Your task to perform on an android device: Open eBay Image 0: 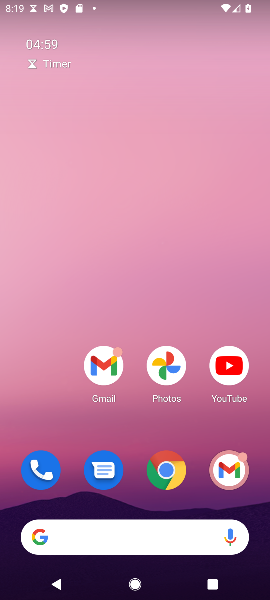
Step 0: click (171, 473)
Your task to perform on an android device: Open eBay Image 1: 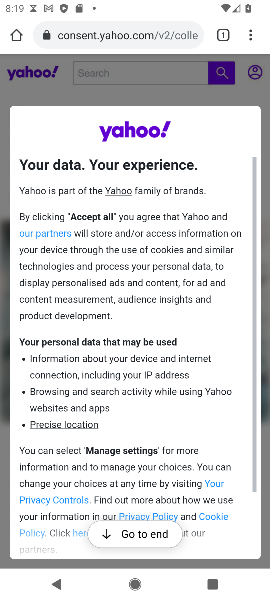
Step 1: click (137, 32)
Your task to perform on an android device: Open eBay Image 2: 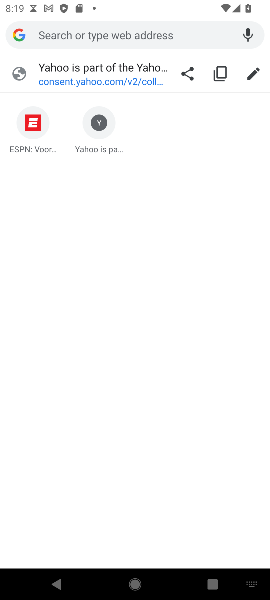
Step 2: click (137, 32)
Your task to perform on an android device: Open eBay Image 3: 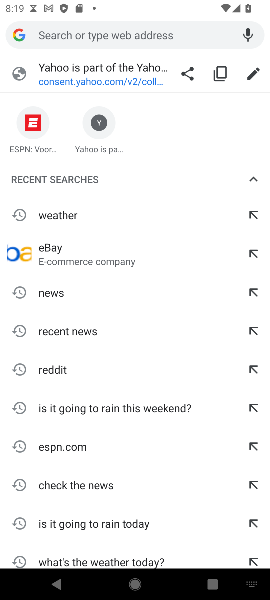
Step 3: type "eBay"
Your task to perform on an android device: Open eBay Image 4: 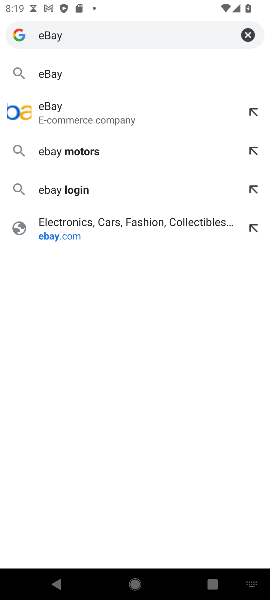
Step 4: click (66, 71)
Your task to perform on an android device: Open eBay Image 5: 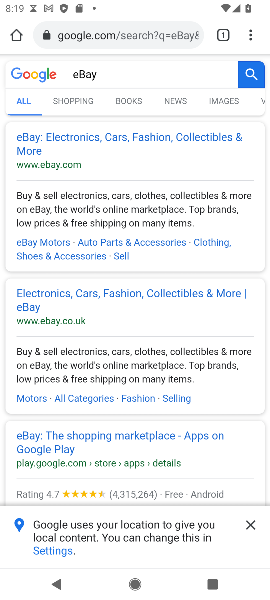
Step 5: task complete